Your task to perform on an android device: Go to location settings Image 0: 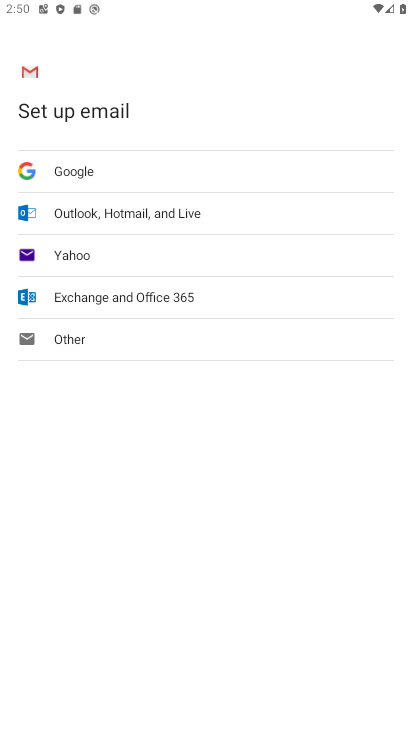
Step 0: press back button
Your task to perform on an android device: Go to location settings Image 1: 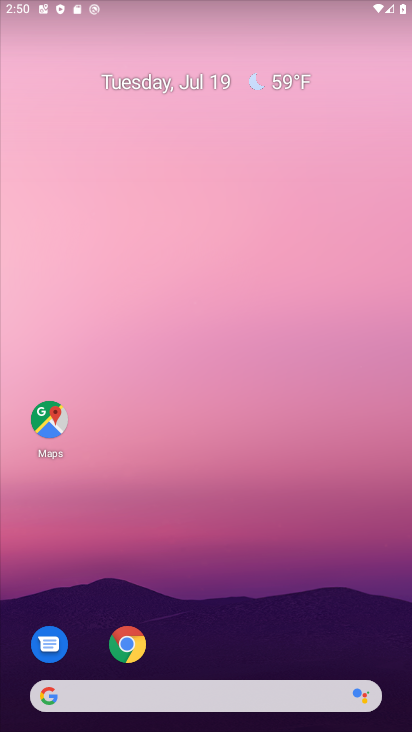
Step 1: press home button
Your task to perform on an android device: Go to location settings Image 2: 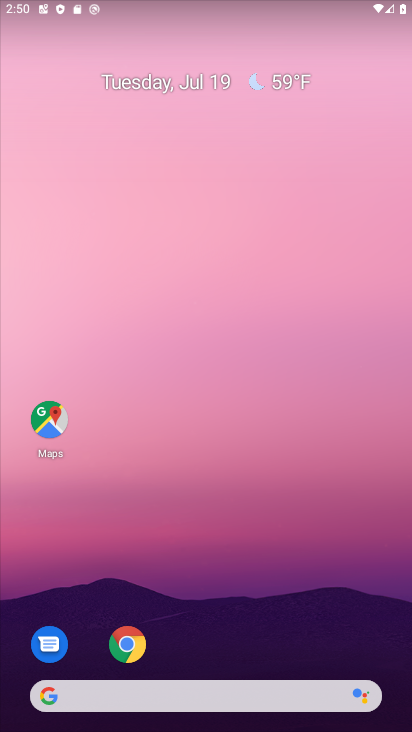
Step 2: drag from (297, 617) to (275, 289)
Your task to perform on an android device: Go to location settings Image 3: 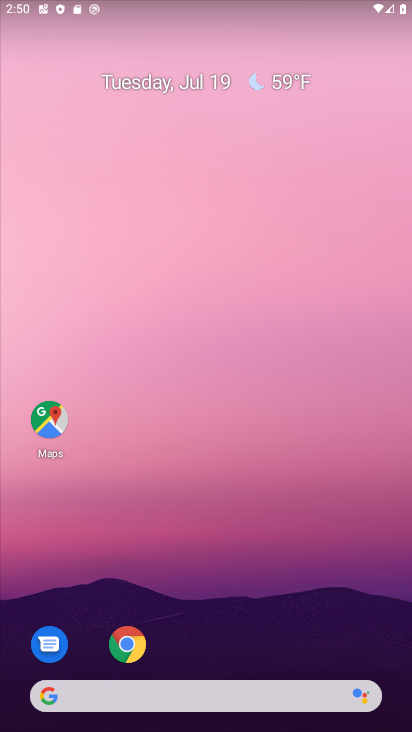
Step 3: drag from (178, 596) to (142, 139)
Your task to perform on an android device: Go to location settings Image 4: 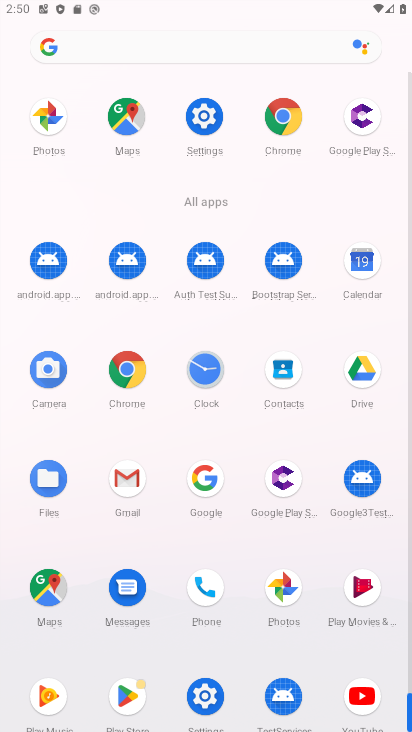
Step 4: drag from (153, 494) to (82, 244)
Your task to perform on an android device: Go to location settings Image 5: 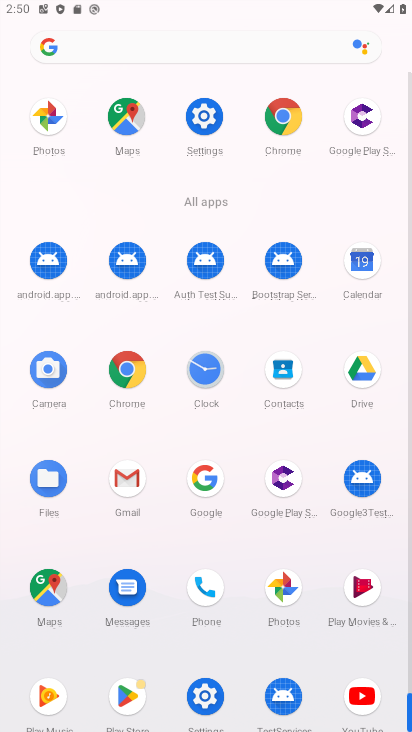
Step 5: click (209, 115)
Your task to perform on an android device: Go to location settings Image 6: 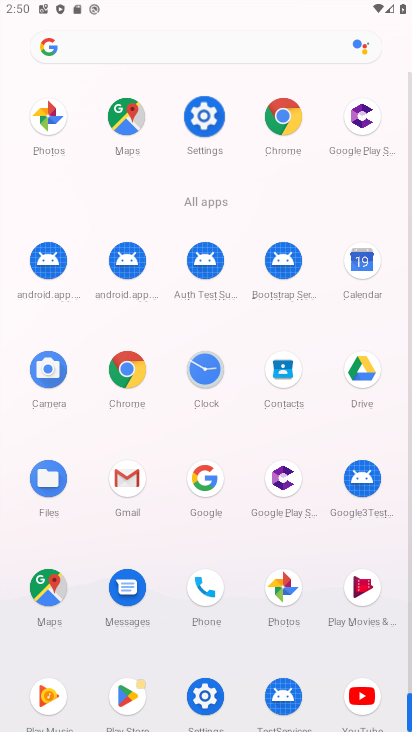
Step 6: click (203, 109)
Your task to perform on an android device: Go to location settings Image 7: 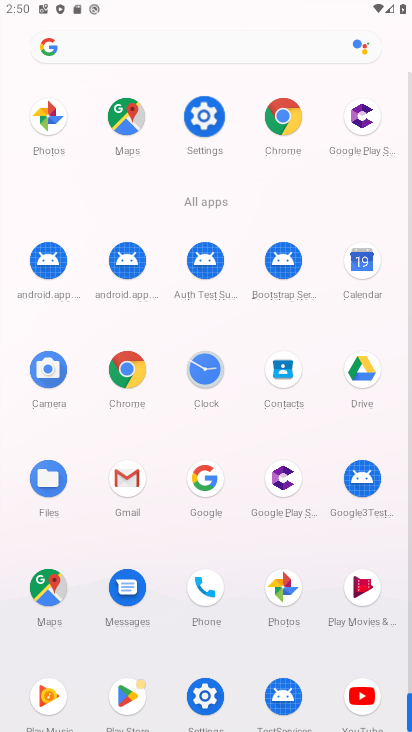
Step 7: click (203, 109)
Your task to perform on an android device: Go to location settings Image 8: 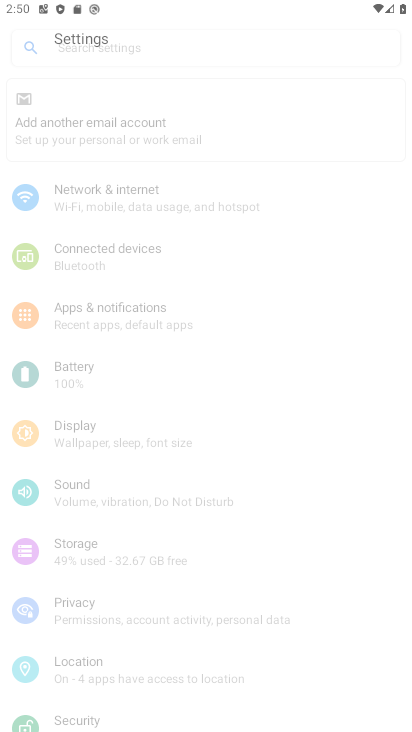
Step 8: click (204, 109)
Your task to perform on an android device: Go to location settings Image 9: 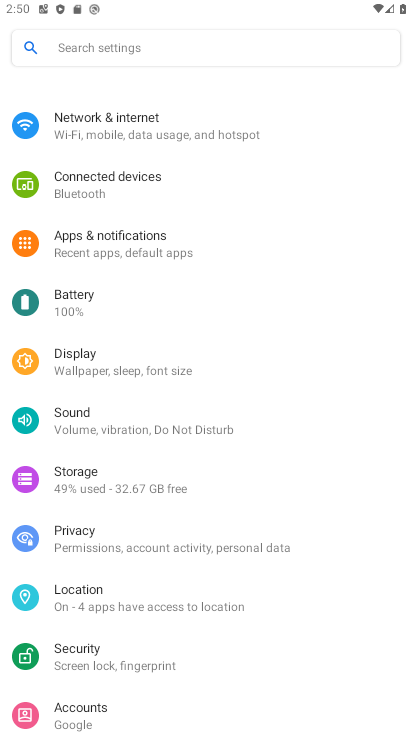
Step 9: click (205, 109)
Your task to perform on an android device: Go to location settings Image 10: 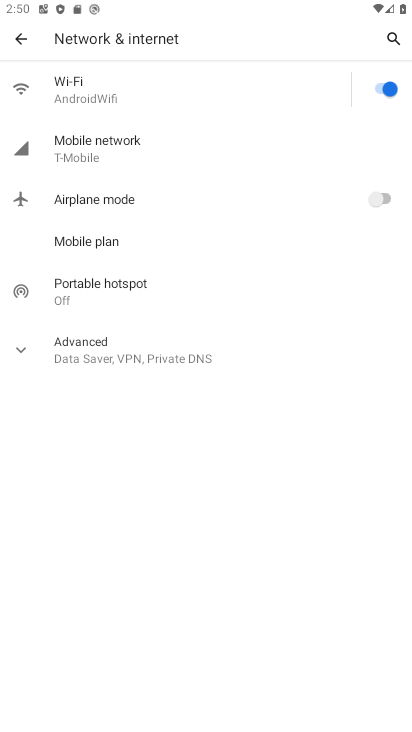
Step 10: click (13, 43)
Your task to perform on an android device: Go to location settings Image 11: 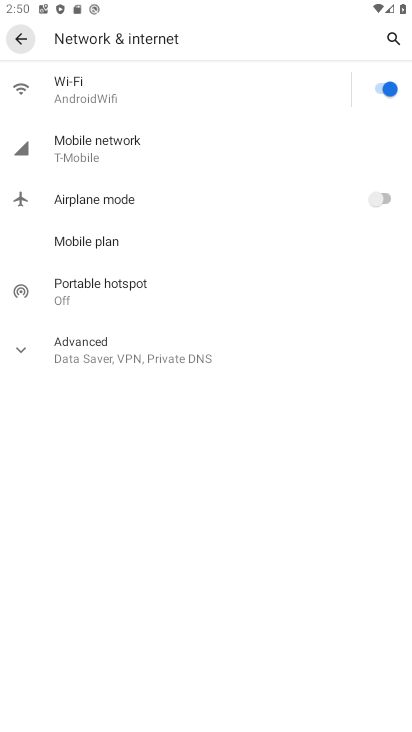
Step 11: click (13, 41)
Your task to perform on an android device: Go to location settings Image 12: 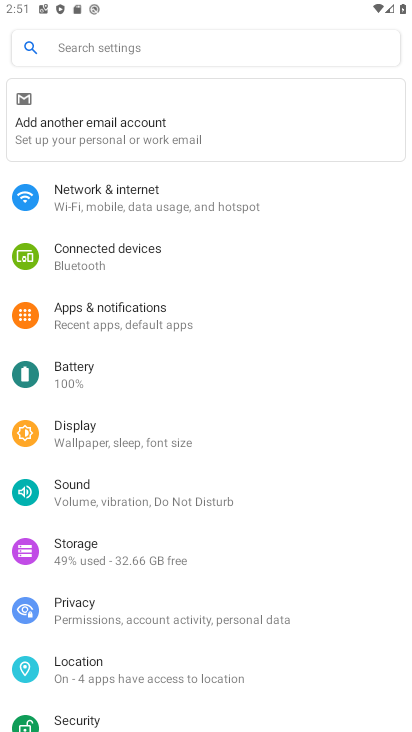
Step 12: drag from (128, 684) to (122, 333)
Your task to perform on an android device: Go to location settings Image 13: 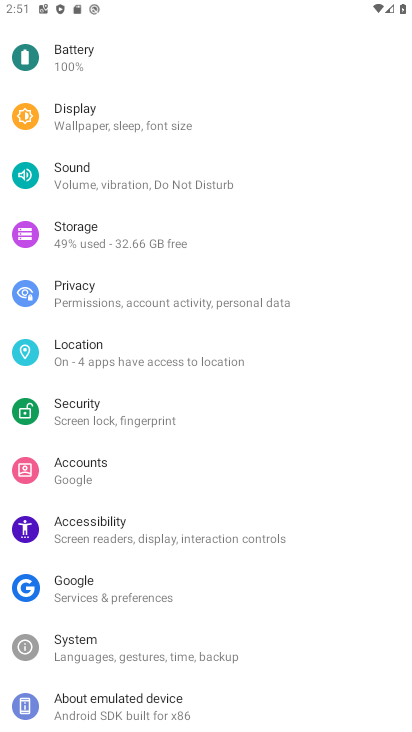
Step 13: click (108, 344)
Your task to perform on an android device: Go to location settings Image 14: 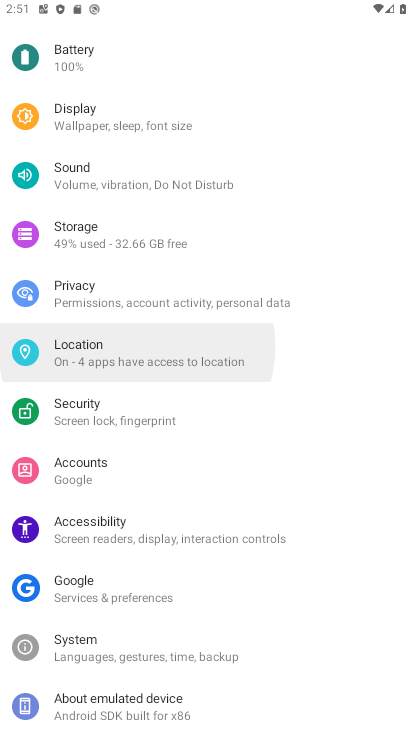
Step 14: click (108, 344)
Your task to perform on an android device: Go to location settings Image 15: 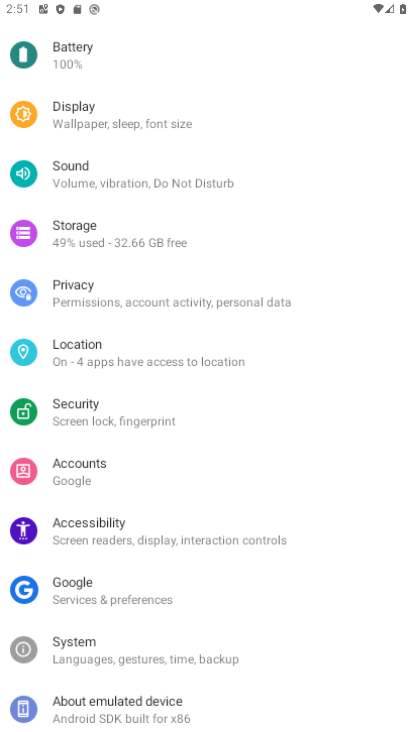
Step 15: click (108, 344)
Your task to perform on an android device: Go to location settings Image 16: 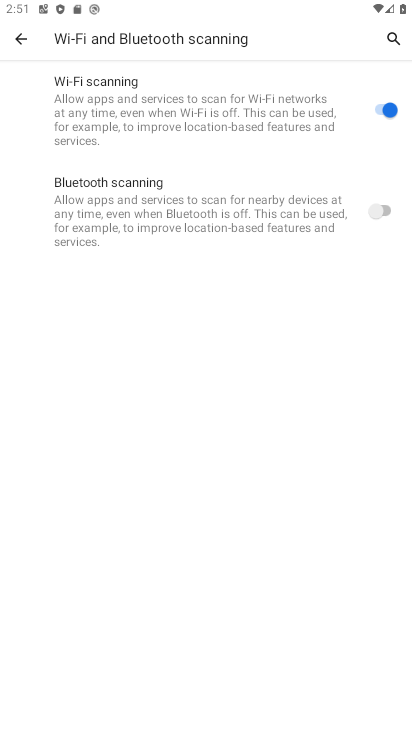
Step 16: click (24, 34)
Your task to perform on an android device: Go to location settings Image 17: 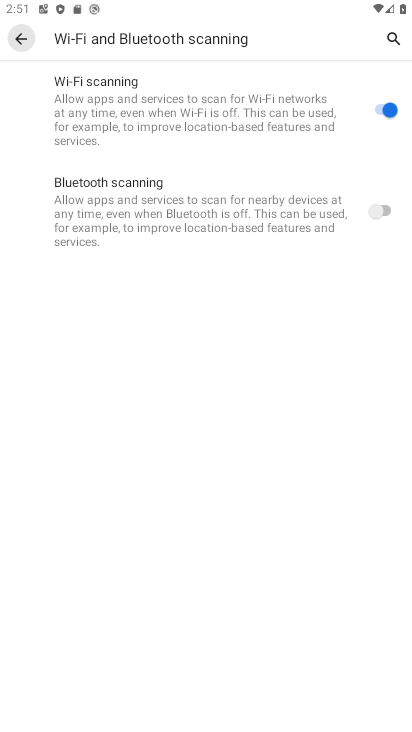
Step 17: click (25, 35)
Your task to perform on an android device: Go to location settings Image 18: 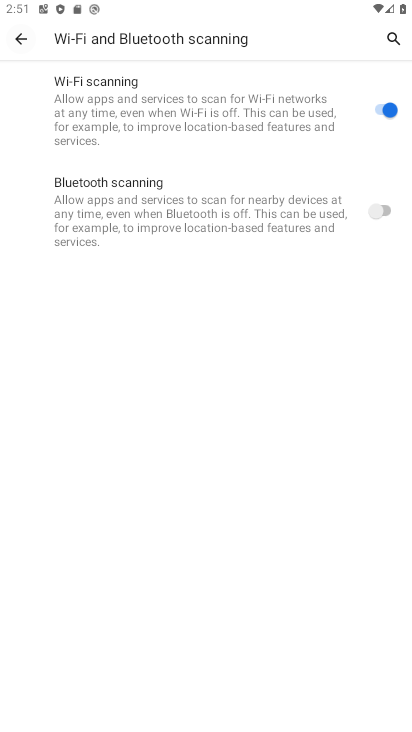
Step 18: click (25, 35)
Your task to perform on an android device: Go to location settings Image 19: 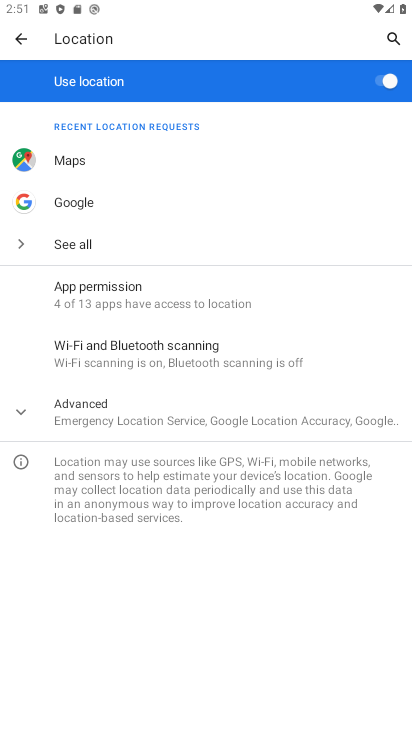
Step 19: click (149, 423)
Your task to perform on an android device: Go to location settings Image 20: 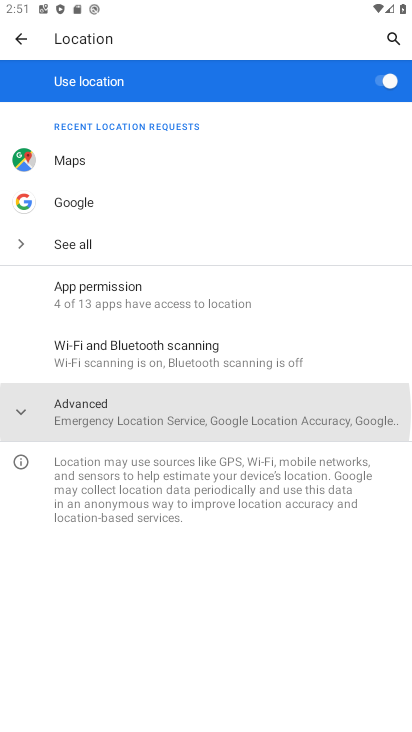
Step 20: click (148, 424)
Your task to perform on an android device: Go to location settings Image 21: 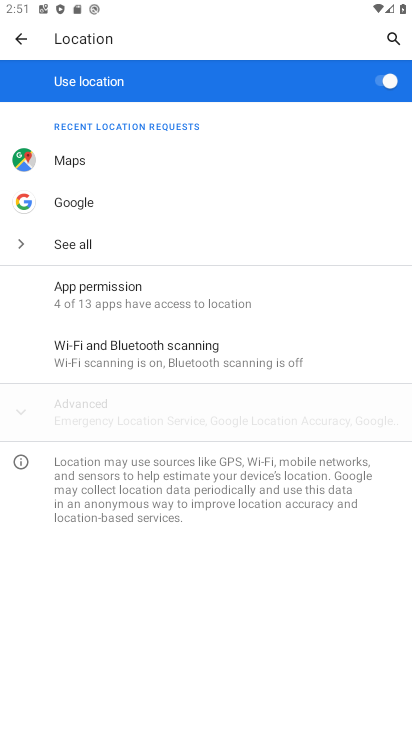
Step 21: click (148, 424)
Your task to perform on an android device: Go to location settings Image 22: 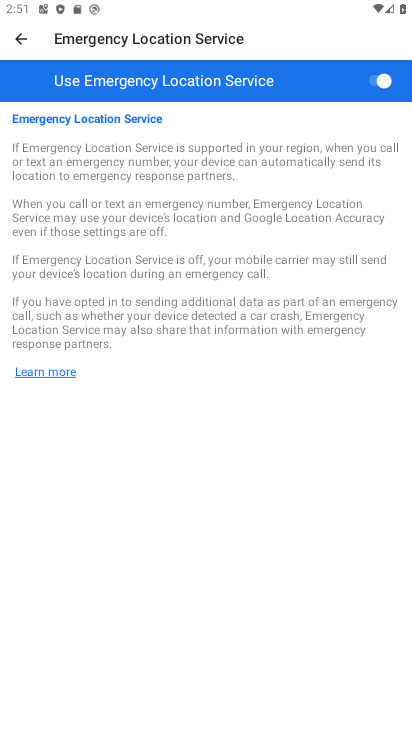
Step 22: click (20, 39)
Your task to perform on an android device: Go to location settings Image 23: 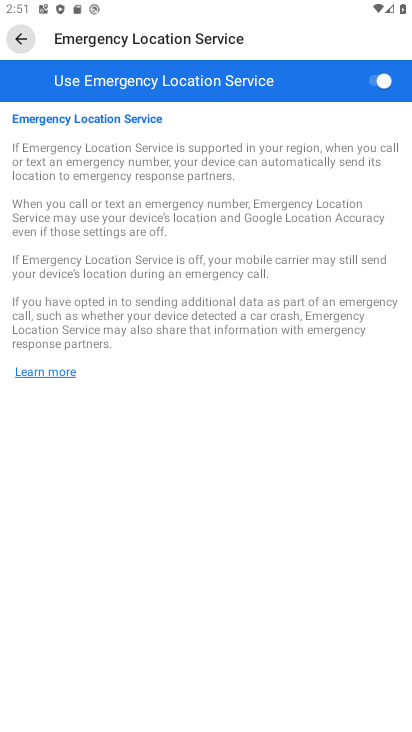
Step 23: click (20, 39)
Your task to perform on an android device: Go to location settings Image 24: 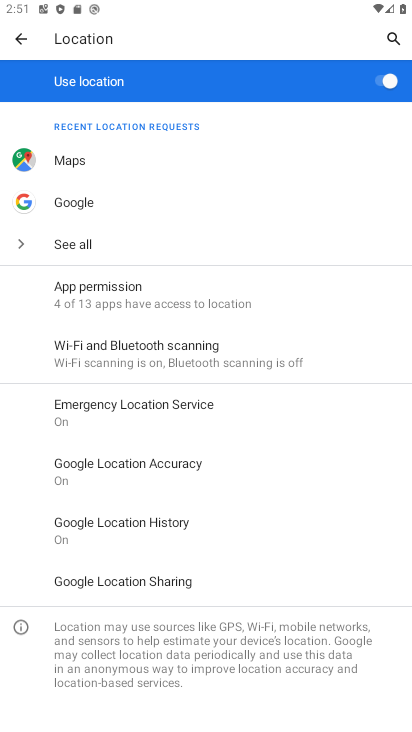
Step 24: task complete